Your task to perform on an android device: change text size in settings app Image 0: 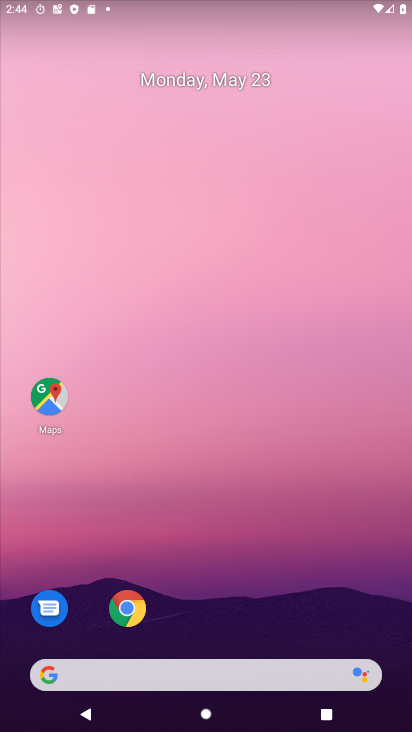
Step 0: click (142, 598)
Your task to perform on an android device: change text size in settings app Image 1: 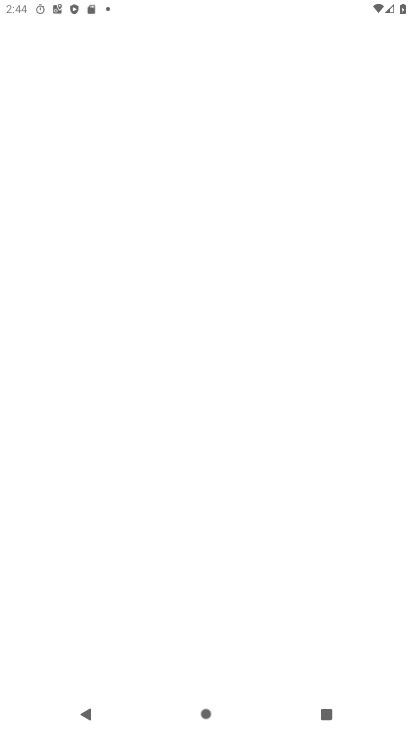
Step 1: press home button
Your task to perform on an android device: change text size in settings app Image 2: 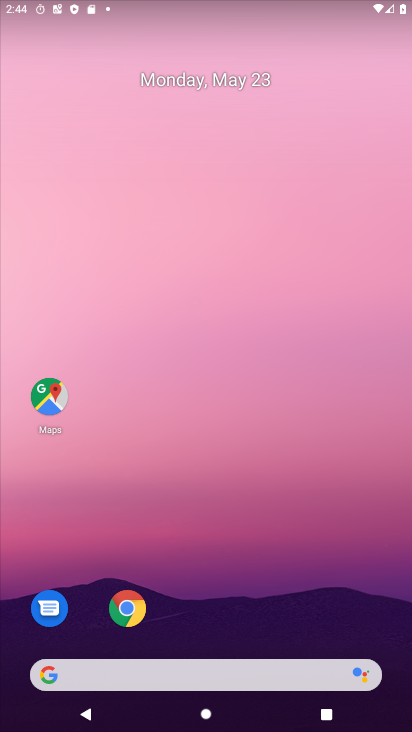
Step 2: drag from (208, 615) to (235, 6)
Your task to perform on an android device: change text size in settings app Image 3: 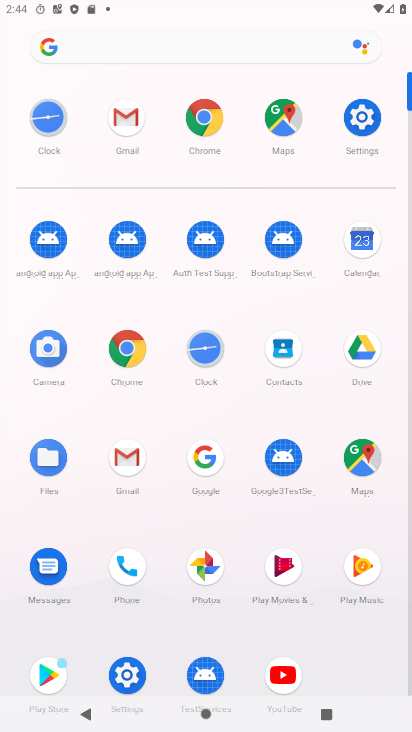
Step 3: click (121, 665)
Your task to perform on an android device: change text size in settings app Image 4: 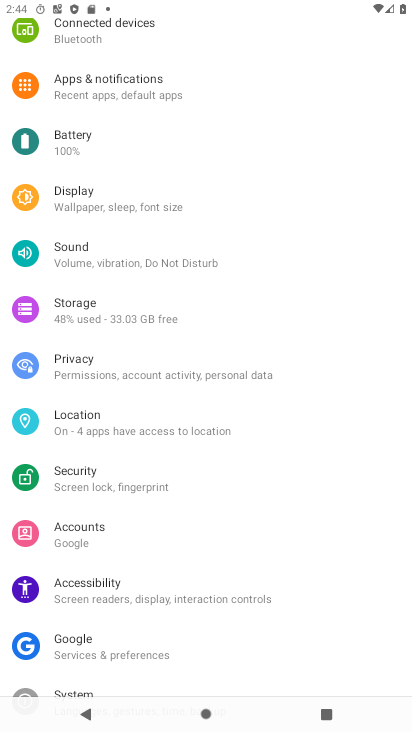
Step 4: drag from (250, 111) to (236, 443)
Your task to perform on an android device: change text size in settings app Image 5: 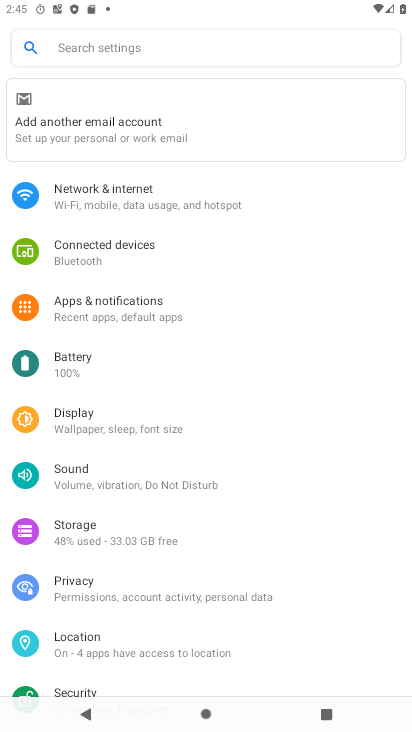
Step 5: click (135, 431)
Your task to perform on an android device: change text size in settings app Image 6: 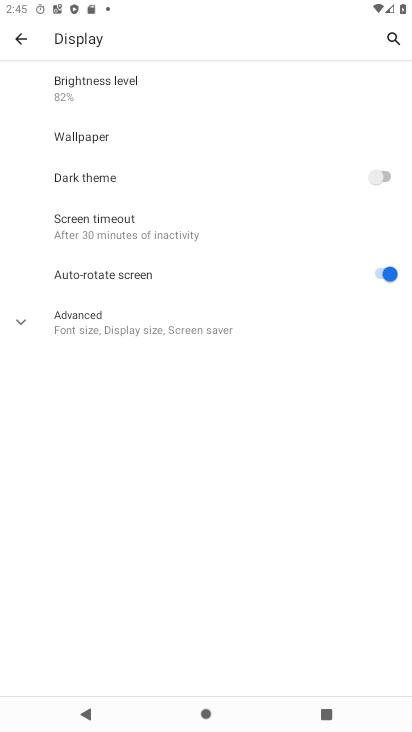
Step 6: click (158, 322)
Your task to perform on an android device: change text size in settings app Image 7: 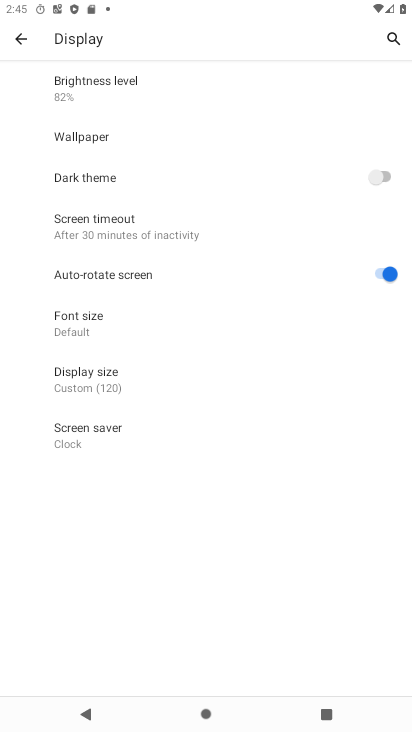
Step 7: click (97, 327)
Your task to perform on an android device: change text size in settings app Image 8: 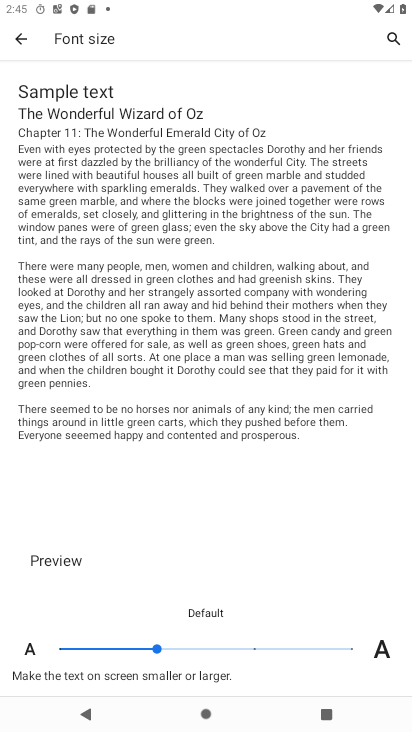
Step 8: click (60, 647)
Your task to perform on an android device: change text size in settings app Image 9: 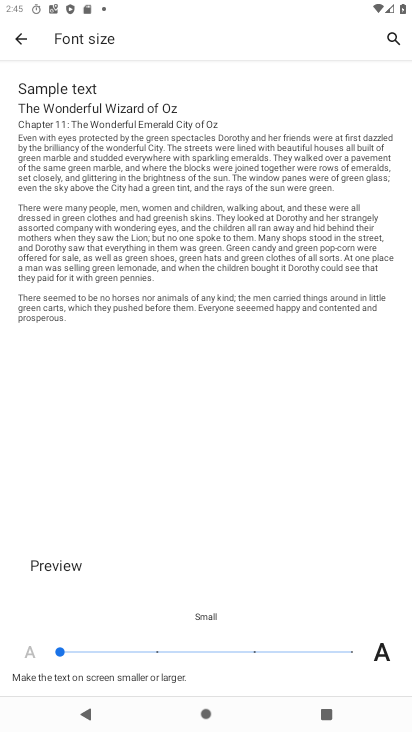
Step 9: task complete